Your task to perform on an android device: turn off wifi Image 0: 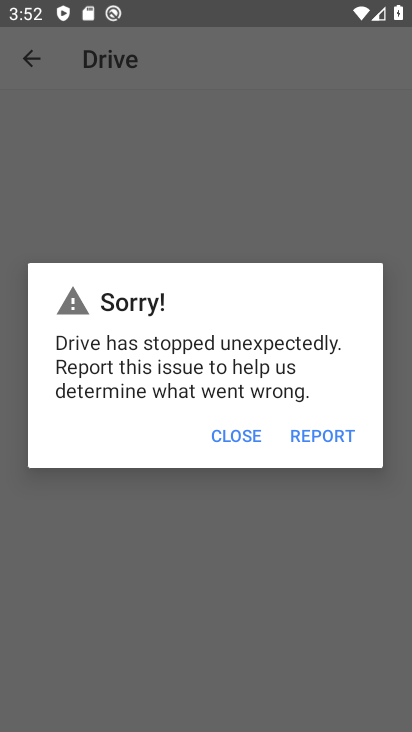
Step 0: press home button
Your task to perform on an android device: turn off wifi Image 1: 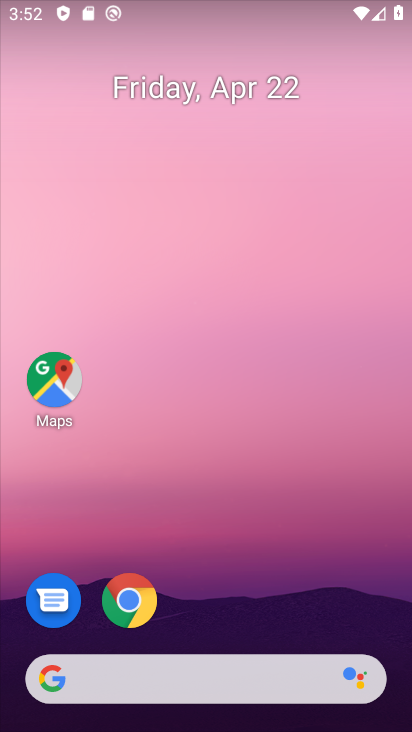
Step 1: drag from (229, 625) to (231, 200)
Your task to perform on an android device: turn off wifi Image 2: 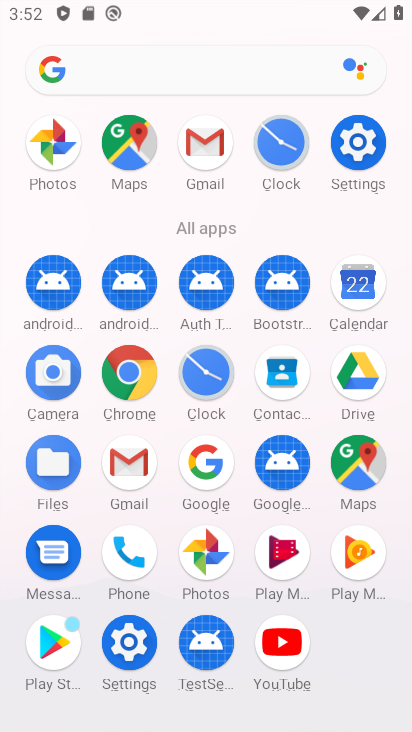
Step 2: click (369, 134)
Your task to perform on an android device: turn off wifi Image 3: 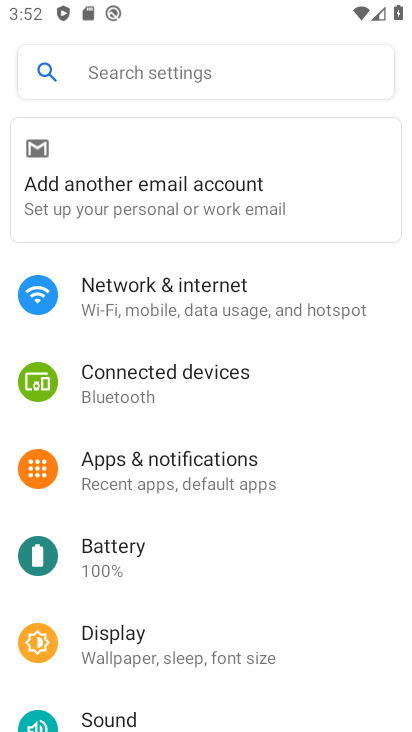
Step 3: click (263, 283)
Your task to perform on an android device: turn off wifi Image 4: 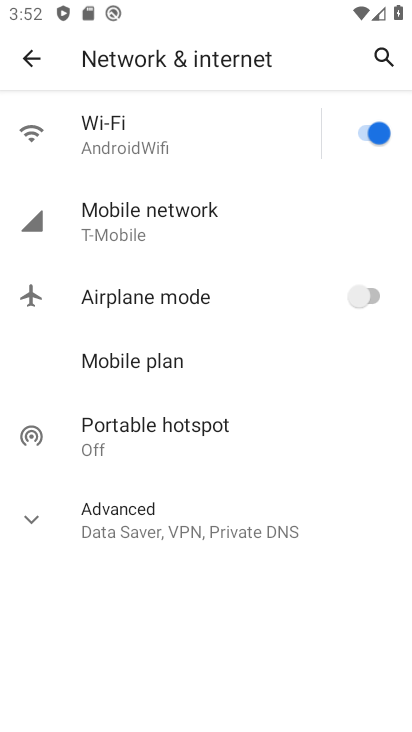
Step 4: click (368, 132)
Your task to perform on an android device: turn off wifi Image 5: 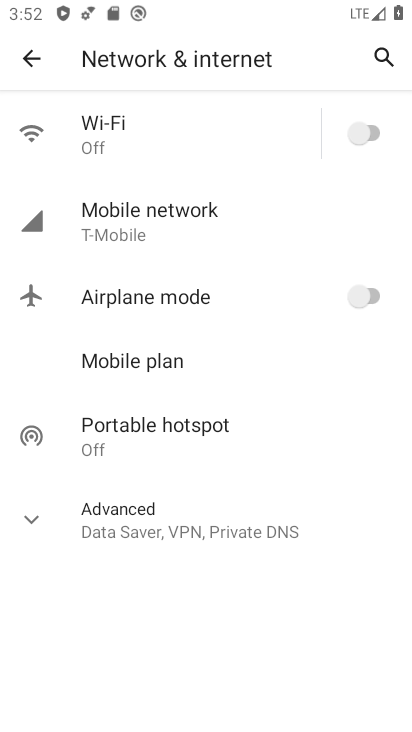
Step 5: task complete